Your task to perform on an android device: Check the weather Image 0: 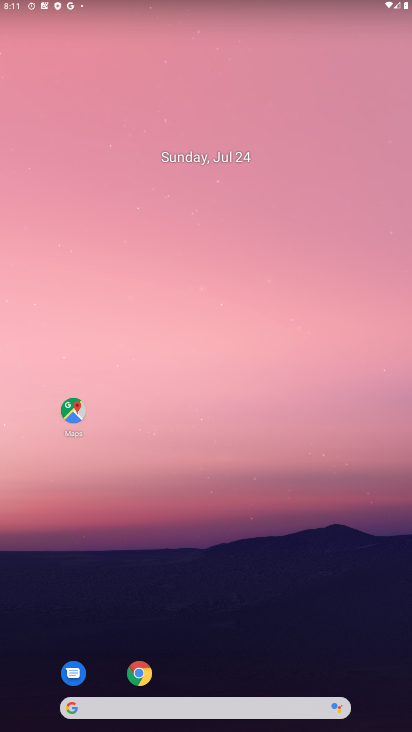
Step 0: click (128, 707)
Your task to perform on an android device: Check the weather Image 1: 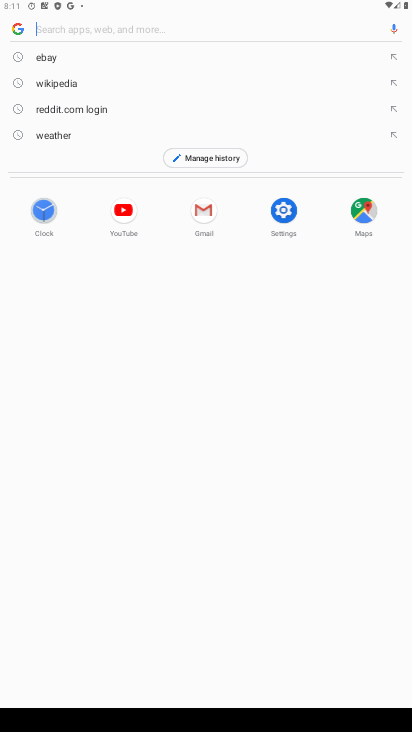
Step 1: click (54, 125)
Your task to perform on an android device: Check the weather Image 2: 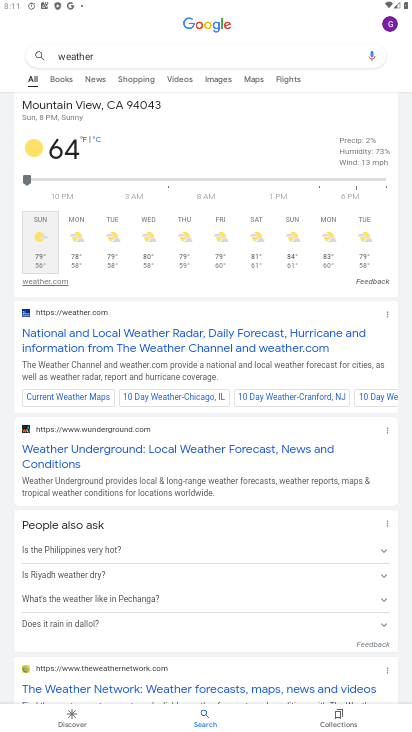
Step 2: task complete